Your task to perform on an android device: uninstall "Google Home" Image 0: 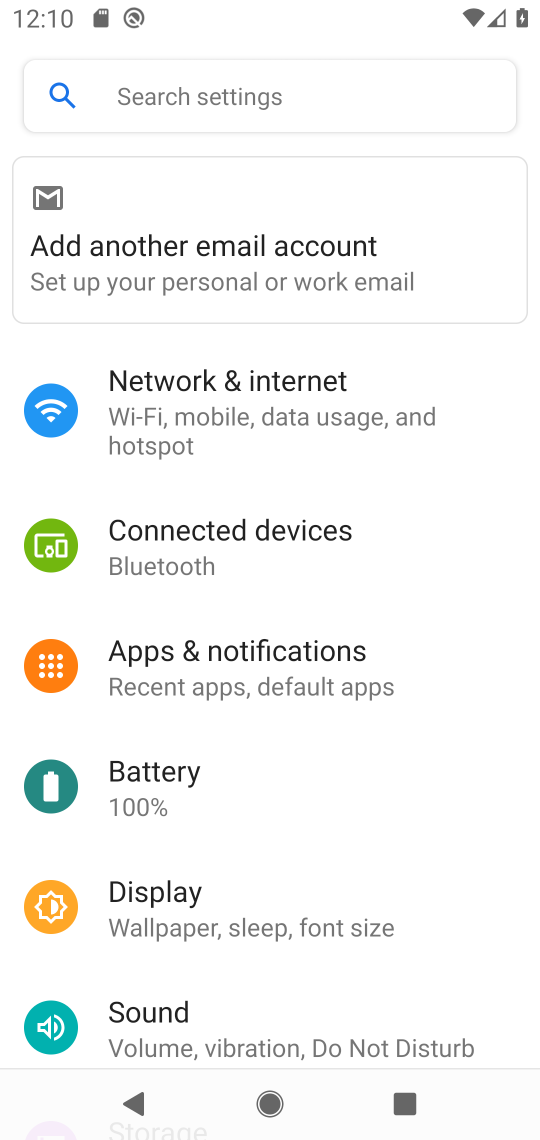
Step 0: press home button
Your task to perform on an android device: uninstall "Google Home" Image 1: 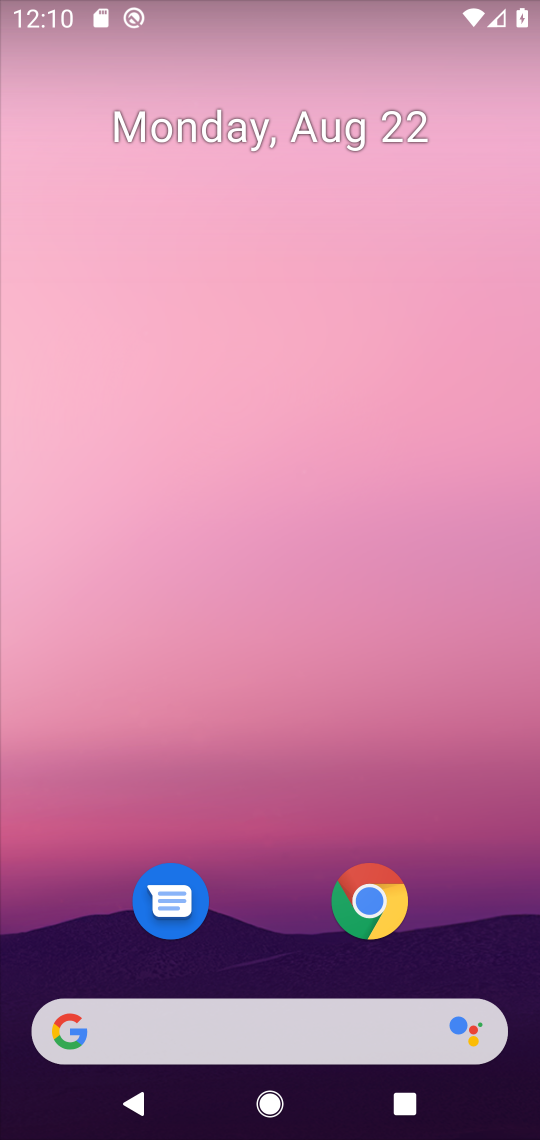
Step 1: drag from (274, 960) to (527, 550)
Your task to perform on an android device: uninstall "Google Home" Image 2: 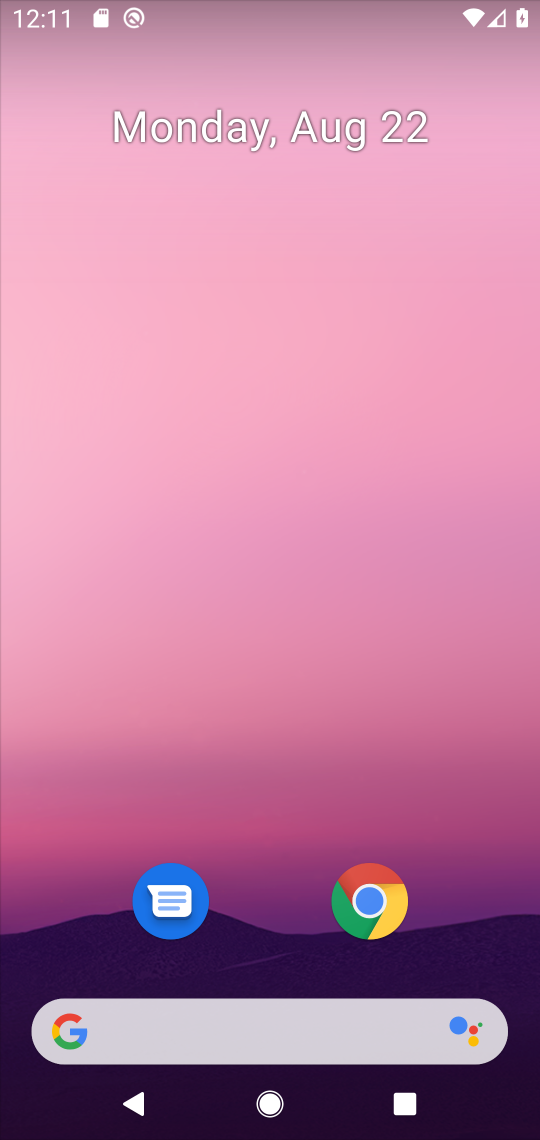
Step 2: drag from (236, 976) to (274, 500)
Your task to perform on an android device: uninstall "Google Home" Image 3: 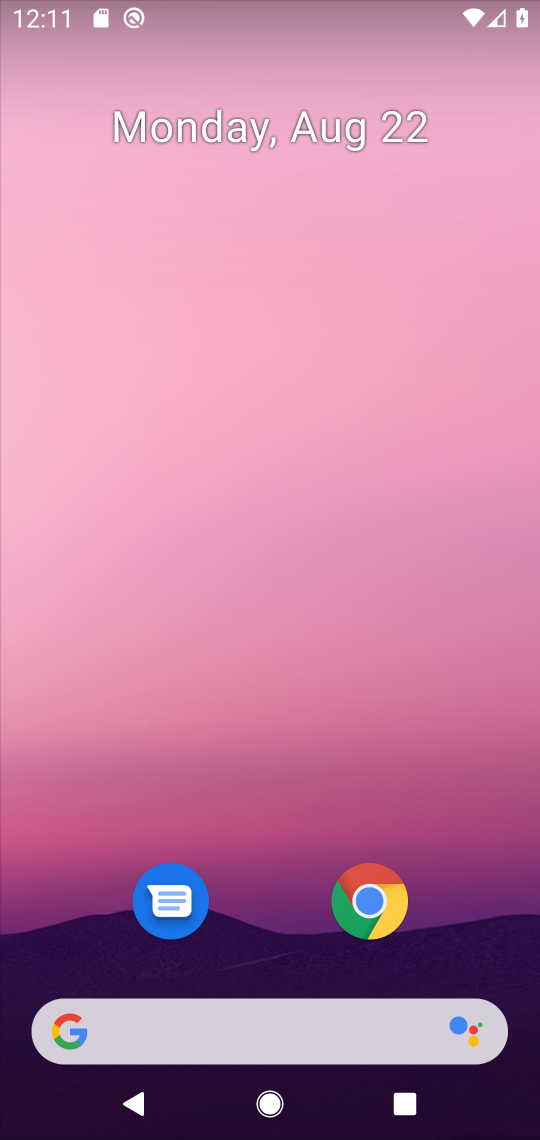
Step 3: drag from (257, 966) to (370, 0)
Your task to perform on an android device: uninstall "Google Home" Image 4: 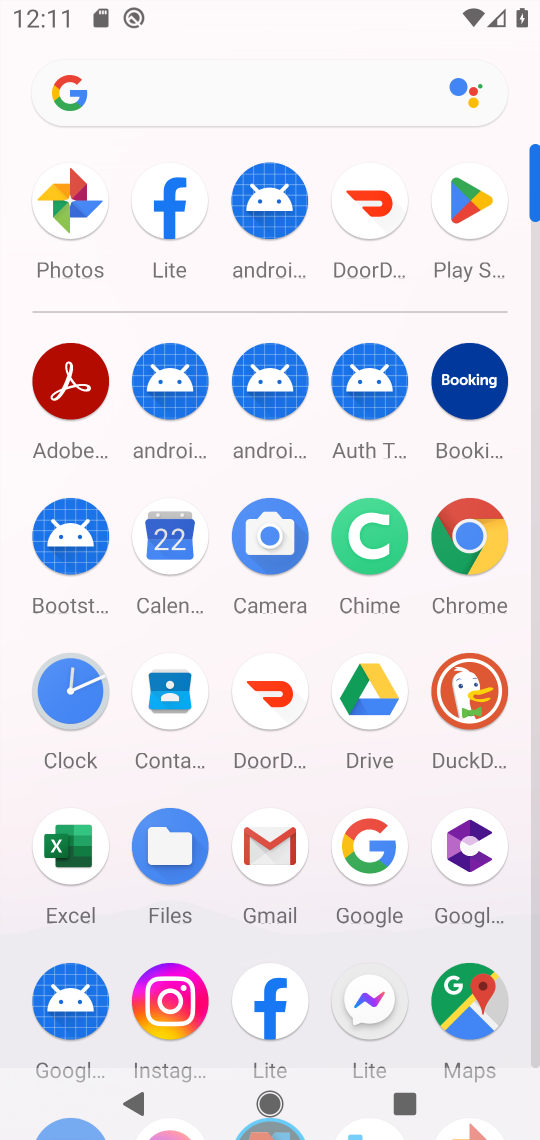
Step 4: click (467, 267)
Your task to perform on an android device: uninstall "Google Home" Image 5: 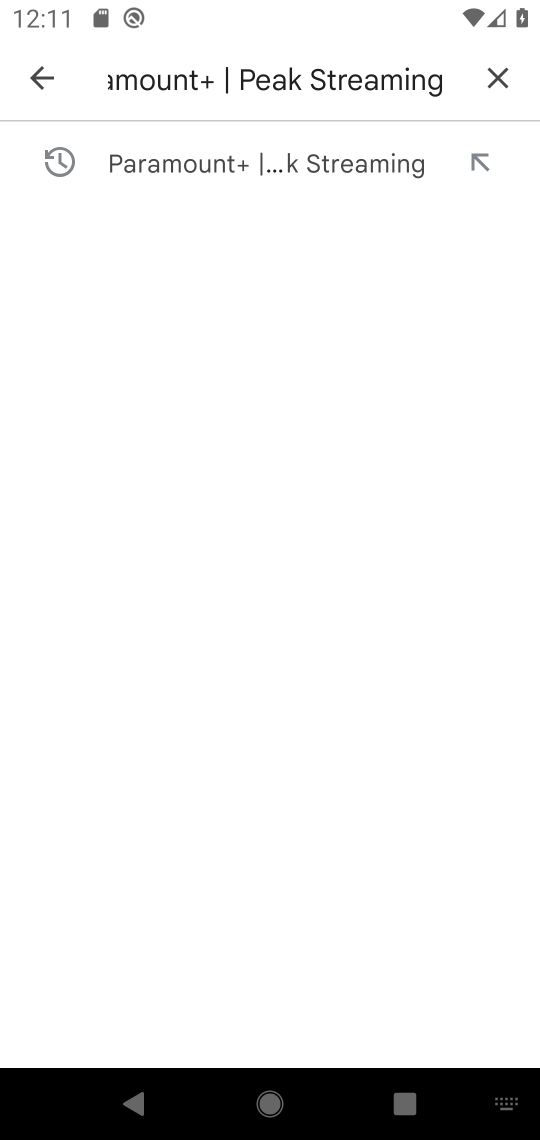
Step 5: click (471, 99)
Your task to perform on an android device: uninstall "Google Home" Image 6: 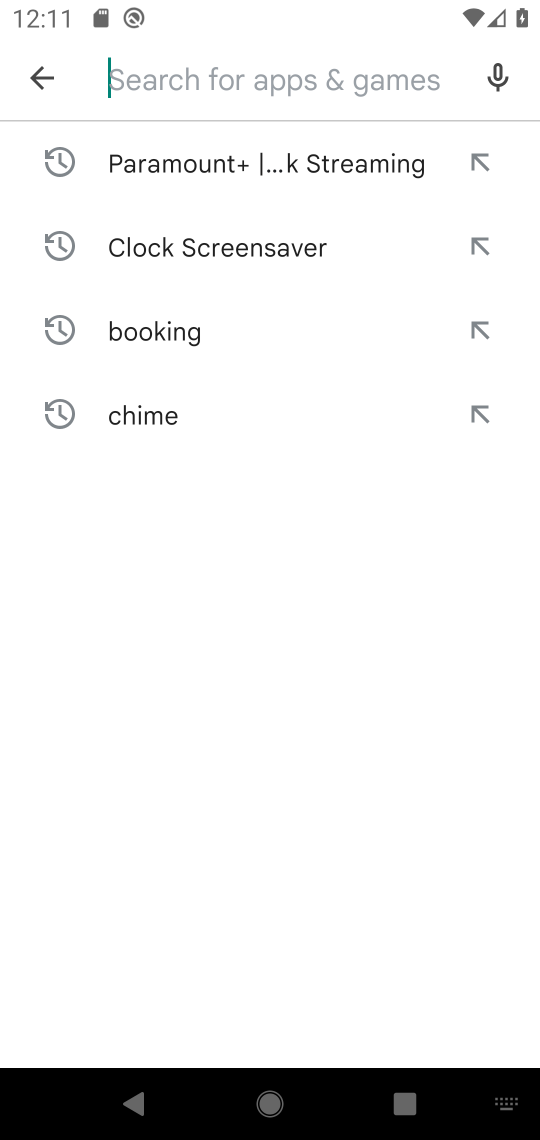
Step 6: click (30, 82)
Your task to perform on an android device: uninstall "Google Home" Image 7: 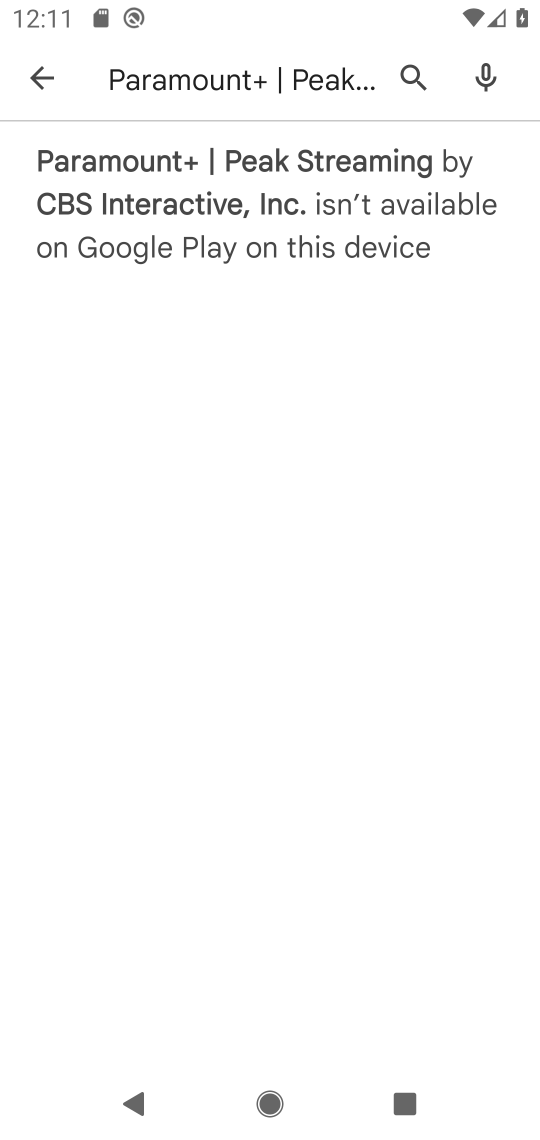
Step 7: click (30, 82)
Your task to perform on an android device: uninstall "Google Home" Image 8: 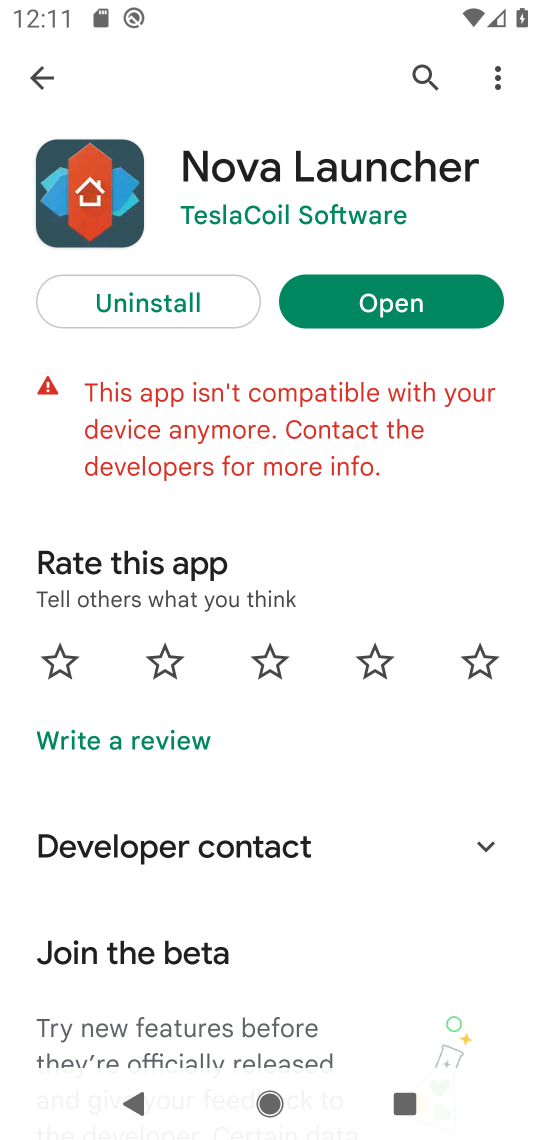
Step 8: click (417, 91)
Your task to perform on an android device: uninstall "Google Home" Image 9: 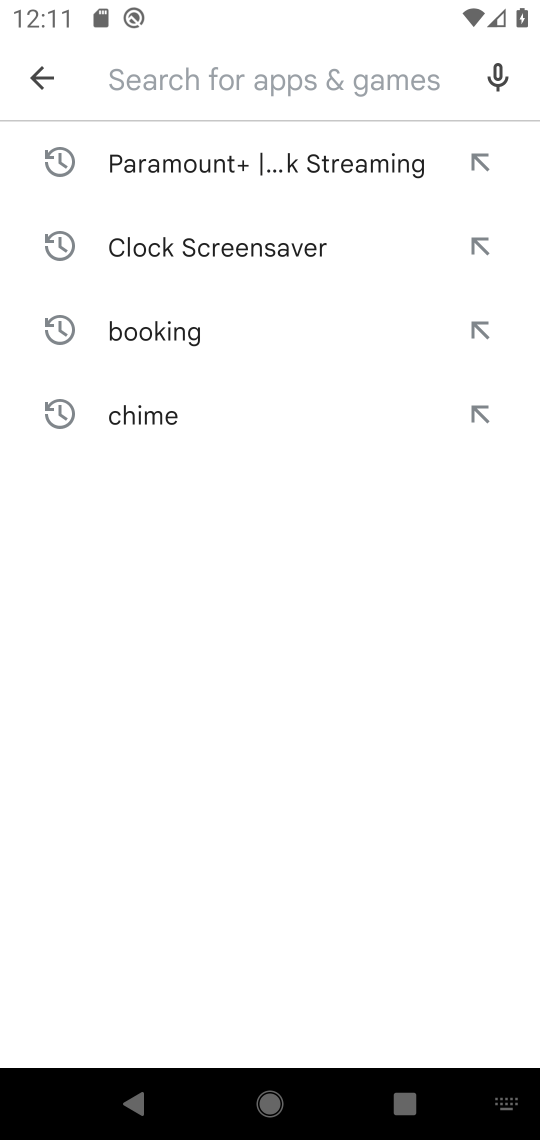
Step 9: type "google home'"
Your task to perform on an android device: uninstall "Google Home" Image 10: 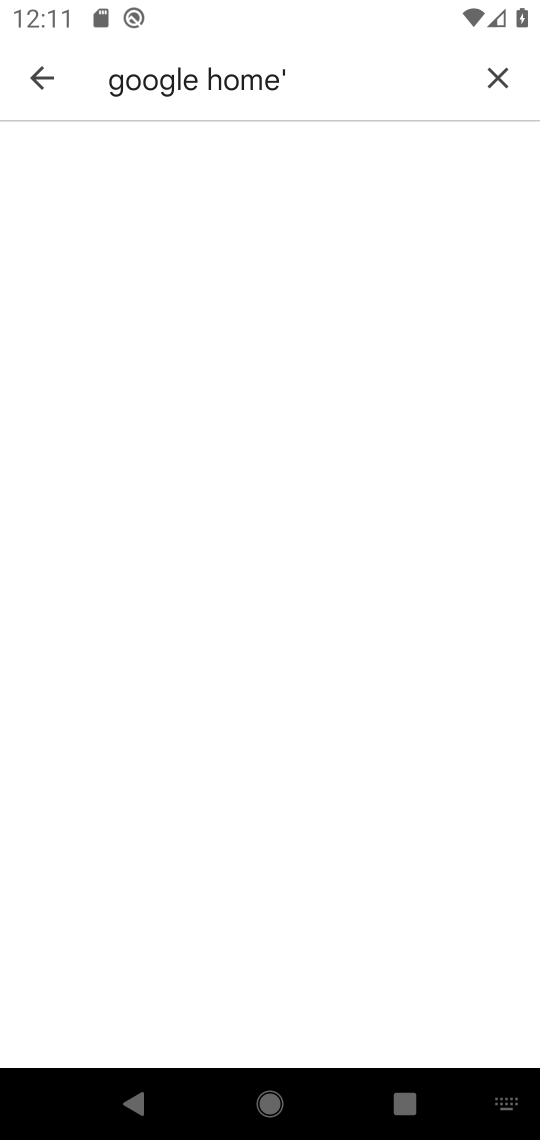
Step 10: task complete